Your task to perform on an android device: Is it going to rain today? Image 0: 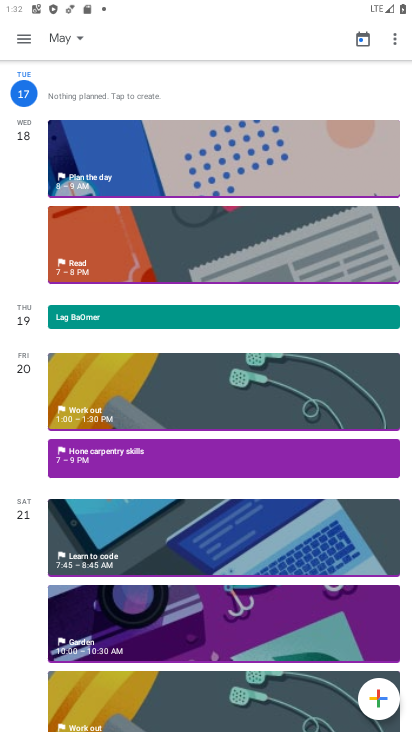
Step 0: press home button
Your task to perform on an android device: Is it going to rain today? Image 1: 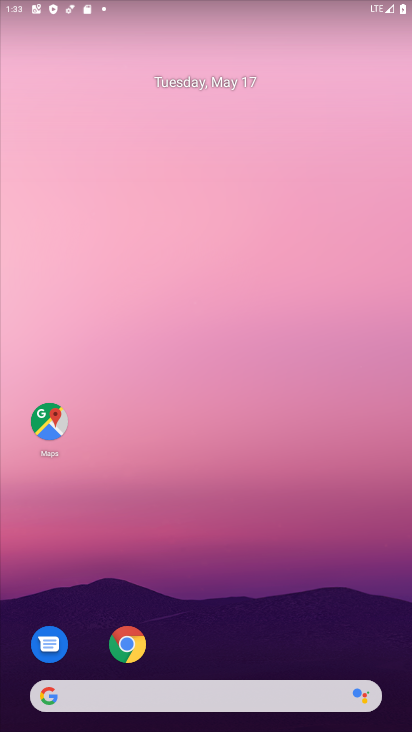
Step 1: drag from (53, 262) to (384, 264)
Your task to perform on an android device: Is it going to rain today? Image 2: 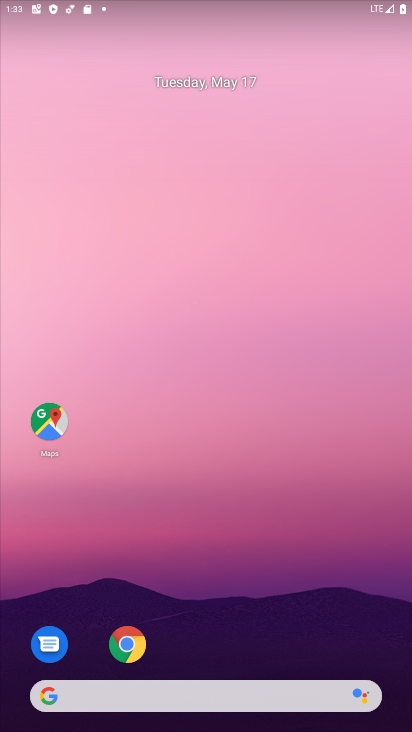
Step 2: drag from (20, 308) to (371, 325)
Your task to perform on an android device: Is it going to rain today? Image 3: 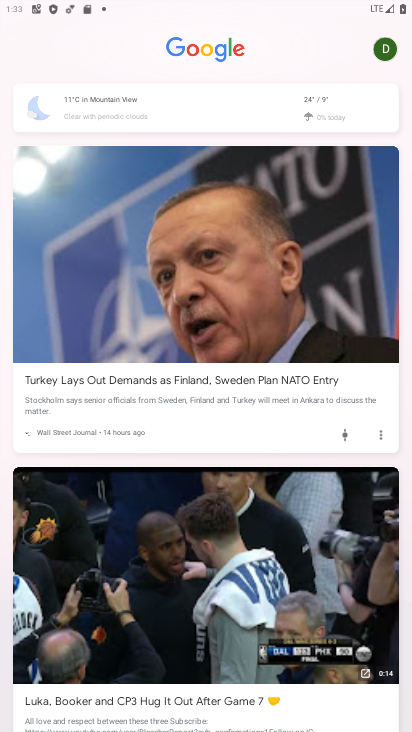
Step 3: click (41, 119)
Your task to perform on an android device: Is it going to rain today? Image 4: 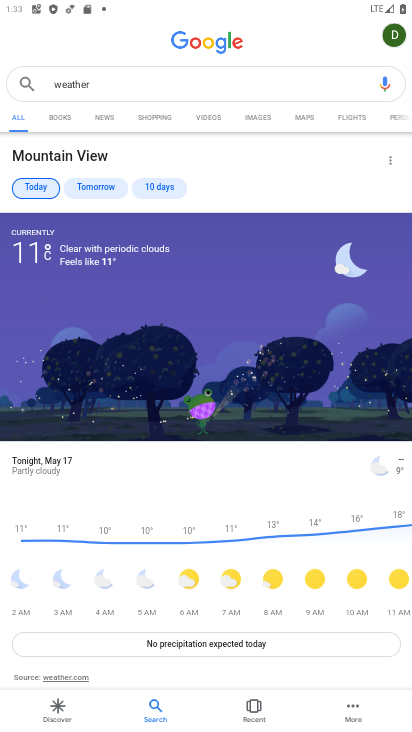
Step 4: task complete